Your task to perform on an android device: Show me the alarms in the clock app Image 0: 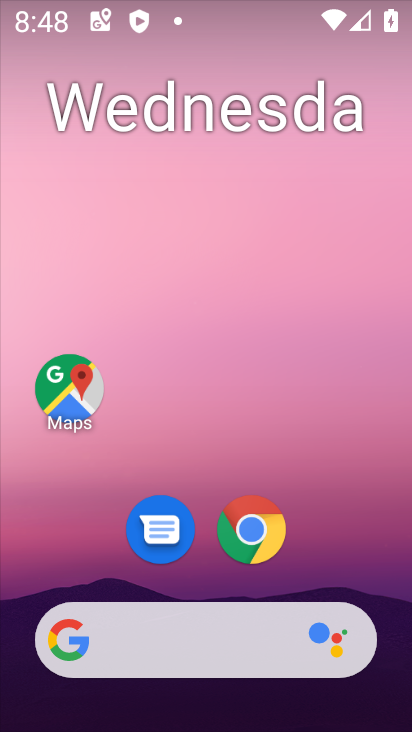
Step 0: drag from (317, 544) to (276, 214)
Your task to perform on an android device: Show me the alarms in the clock app Image 1: 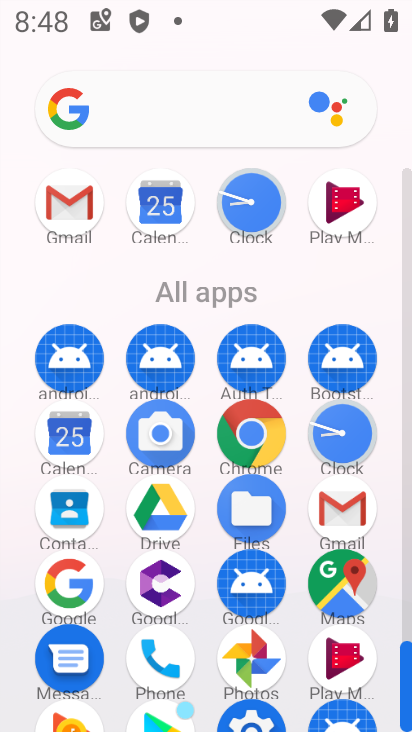
Step 1: click (349, 423)
Your task to perform on an android device: Show me the alarms in the clock app Image 2: 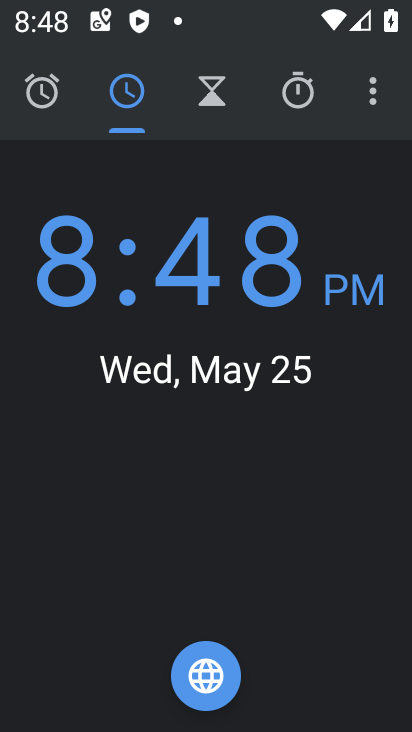
Step 2: click (30, 91)
Your task to perform on an android device: Show me the alarms in the clock app Image 3: 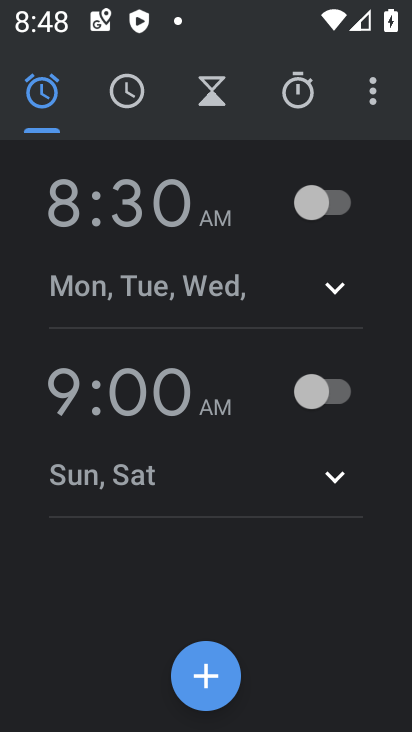
Step 3: task complete